Your task to perform on an android device: change alarm snooze length Image 0: 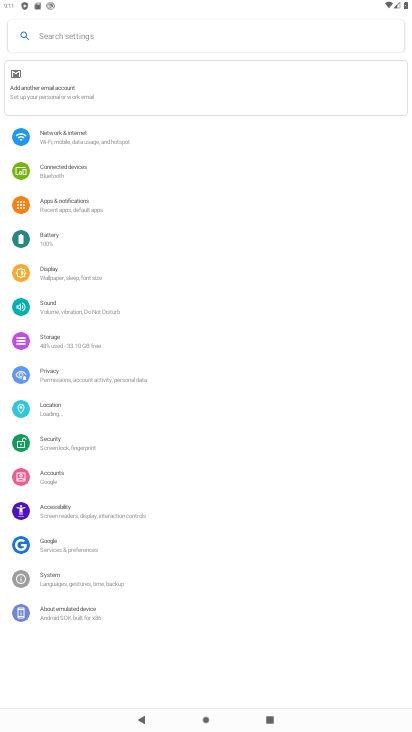
Step 0: press home button
Your task to perform on an android device: change alarm snooze length Image 1: 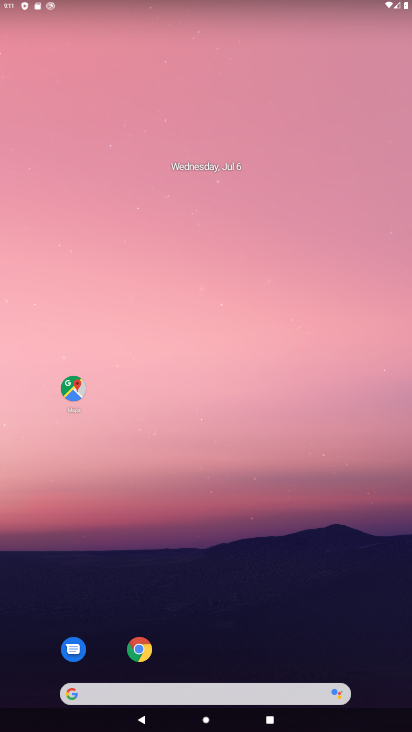
Step 1: drag from (219, 644) to (150, 17)
Your task to perform on an android device: change alarm snooze length Image 2: 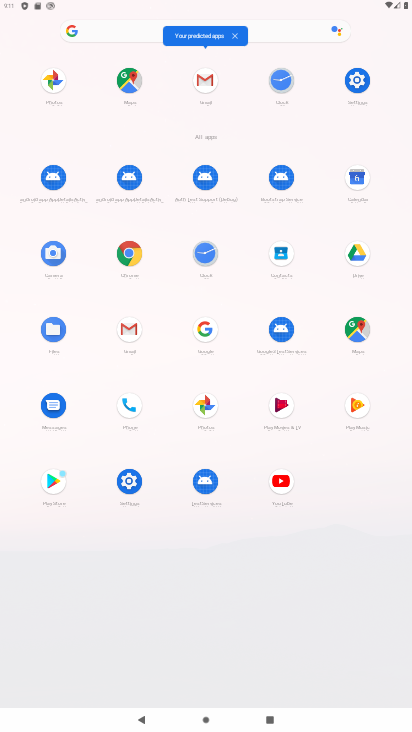
Step 2: click (214, 246)
Your task to perform on an android device: change alarm snooze length Image 3: 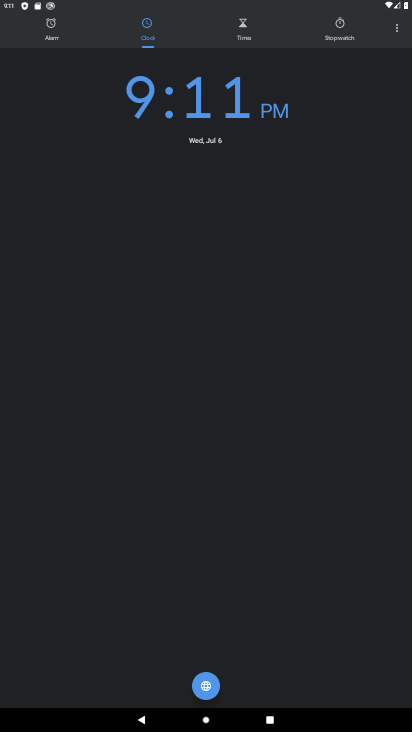
Step 3: click (393, 29)
Your task to perform on an android device: change alarm snooze length Image 4: 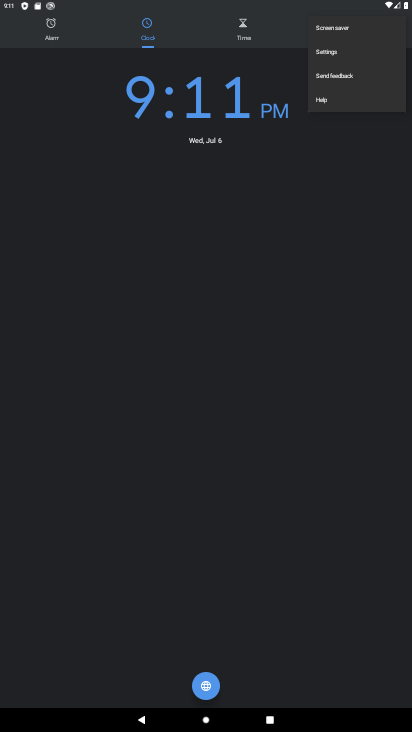
Step 4: click (345, 52)
Your task to perform on an android device: change alarm snooze length Image 5: 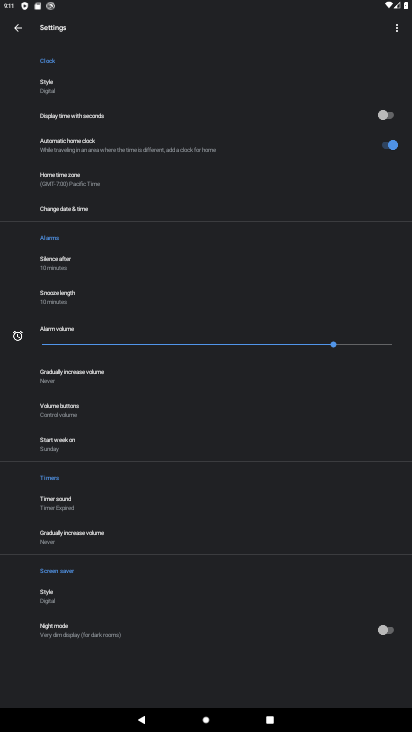
Step 5: click (91, 294)
Your task to perform on an android device: change alarm snooze length Image 6: 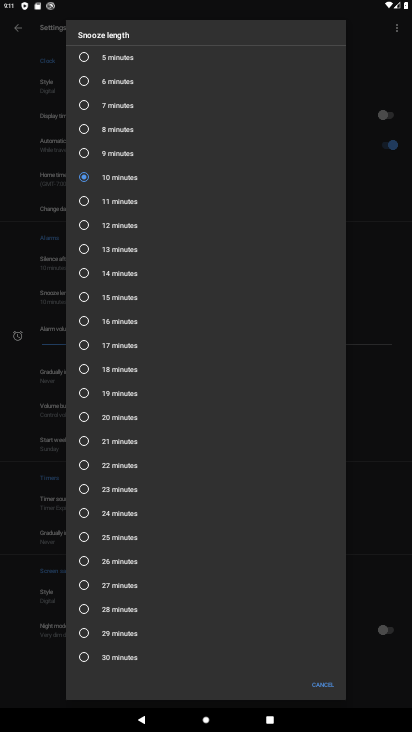
Step 6: click (93, 62)
Your task to perform on an android device: change alarm snooze length Image 7: 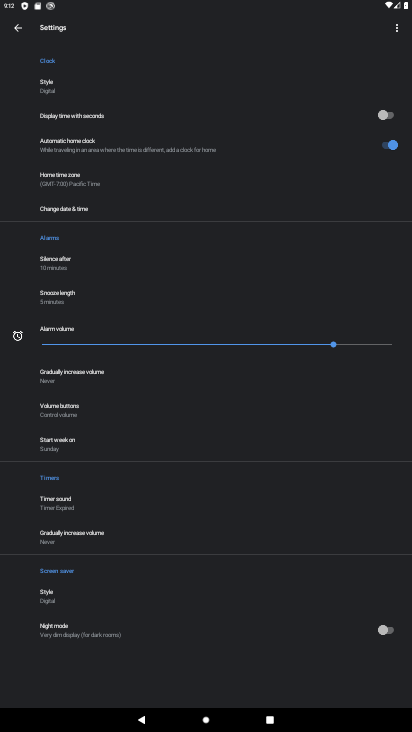
Step 7: task complete